Your task to perform on an android device: turn off improve location accuracy Image 0: 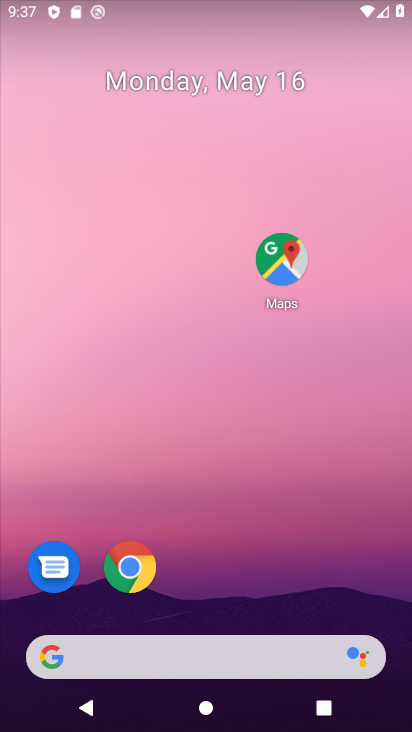
Step 0: drag from (249, 589) to (219, 0)
Your task to perform on an android device: turn off improve location accuracy Image 1: 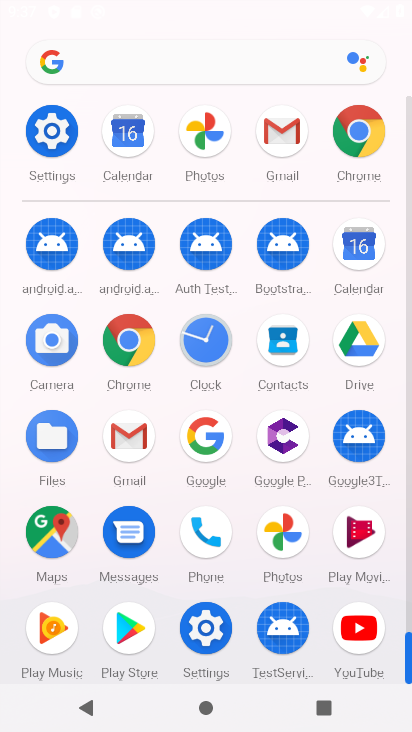
Step 1: click (60, 126)
Your task to perform on an android device: turn off improve location accuracy Image 2: 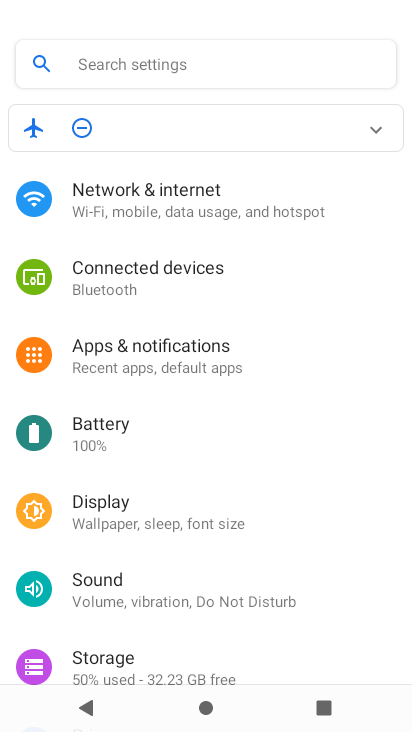
Step 2: drag from (222, 552) to (210, 179)
Your task to perform on an android device: turn off improve location accuracy Image 3: 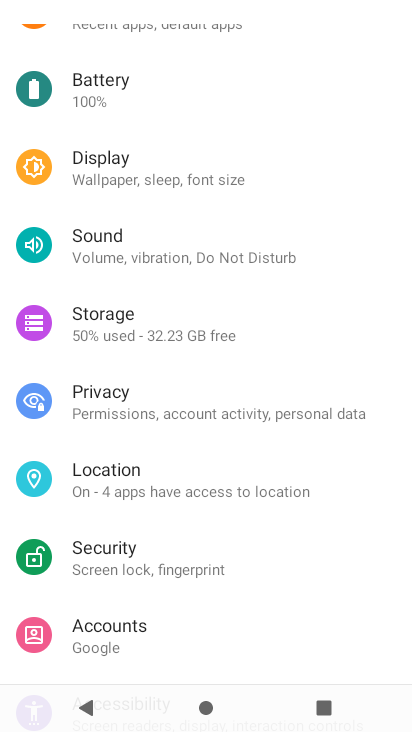
Step 3: click (133, 483)
Your task to perform on an android device: turn off improve location accuracy Image 4: 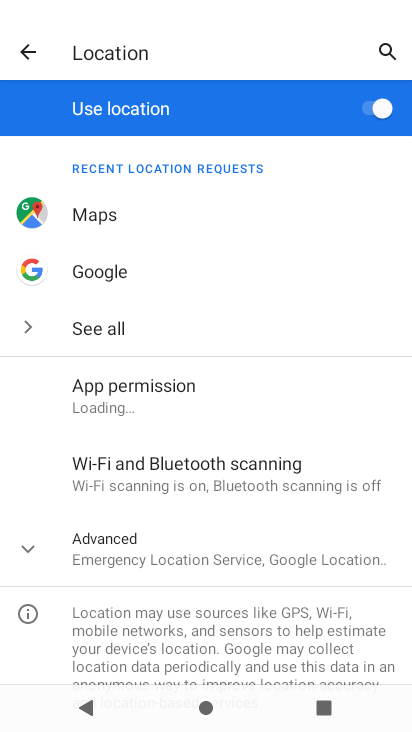
Step 4: drag from (181, 514) to (164, 297)
Your task to perform on an android device: turn off improve location accuracy Image 5: 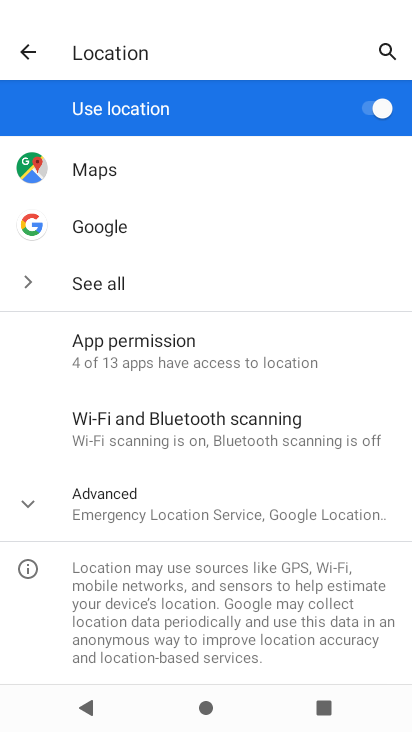
Step 5: click (93, 505)
Your task to perform on an android device: turn off improve location accuracy Image 6: 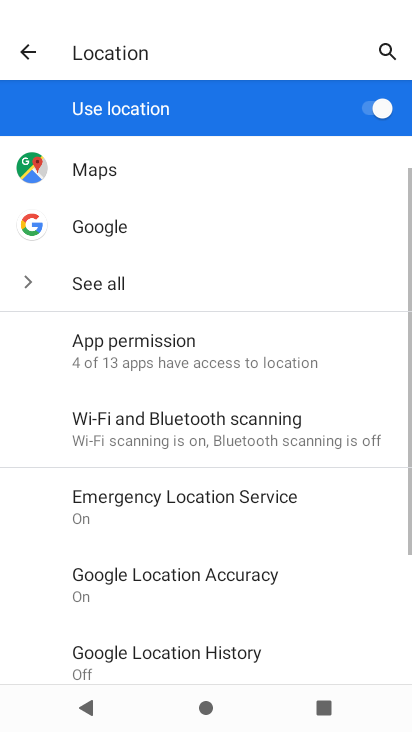
Step 6: drag from (268, 469) to (254, 219)
Your task to perform on an android device: turn off improve location accuracy Image 7: 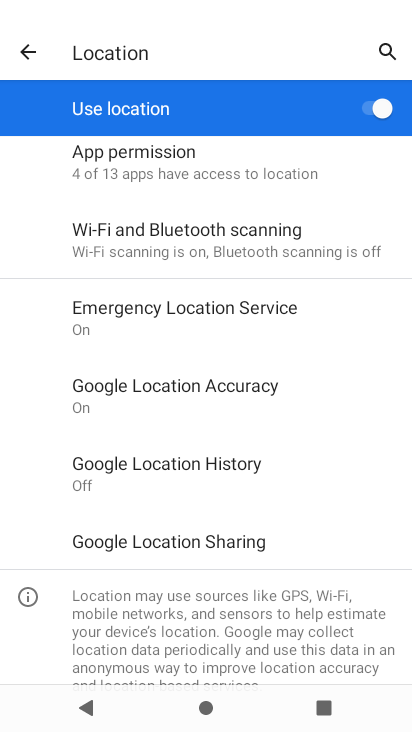
Step 7: click (201, 402)
Your task to perform on an android device: turn off improve location accuracy Image 8: 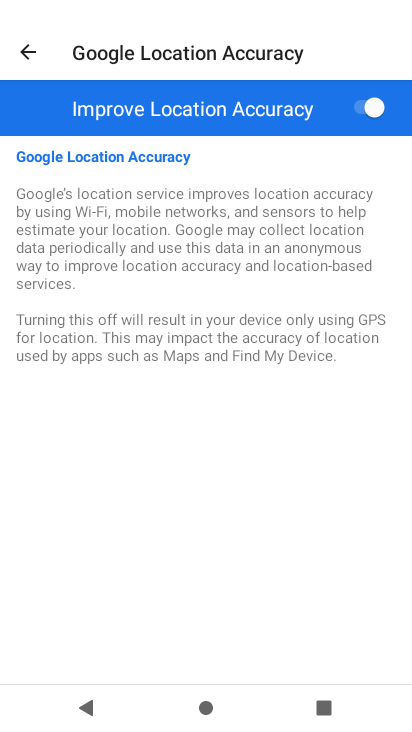
Step 8: click (364, 109)
Your task to perform on an android device: turn off improve location accuracy Image 9: 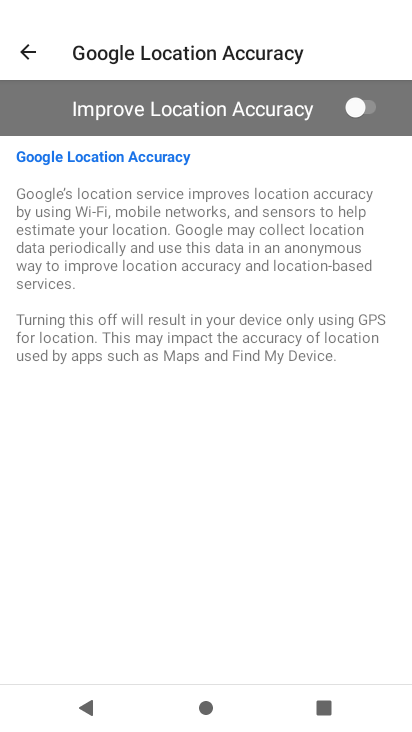
Step 9: task complete